Your task to perform on an android device: Turn off the flashlight Image 0: 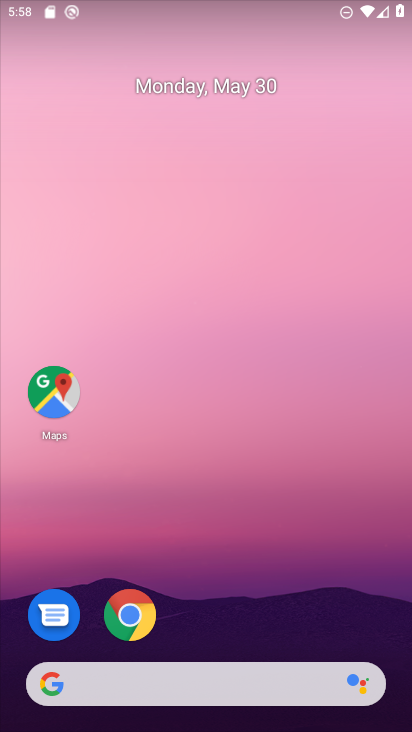
Step 0: drag from (236, 625) to (259, 171)
Your task to perform on an android device: Turn off the flashlight Image 1: 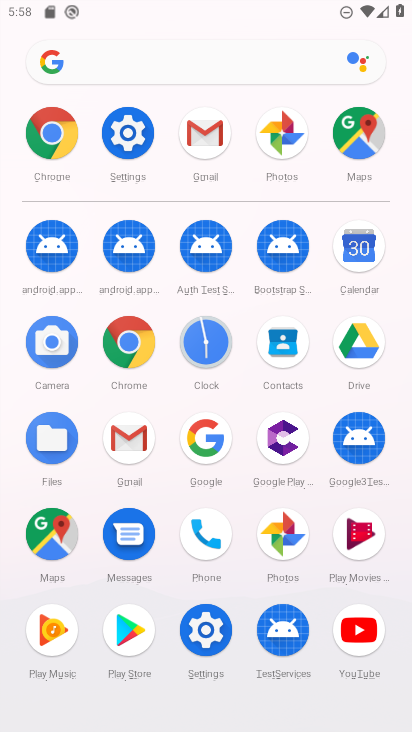
Step 1: click (138, 135)
Your task to perform on an android device: Turn off the flashlight Image 2: 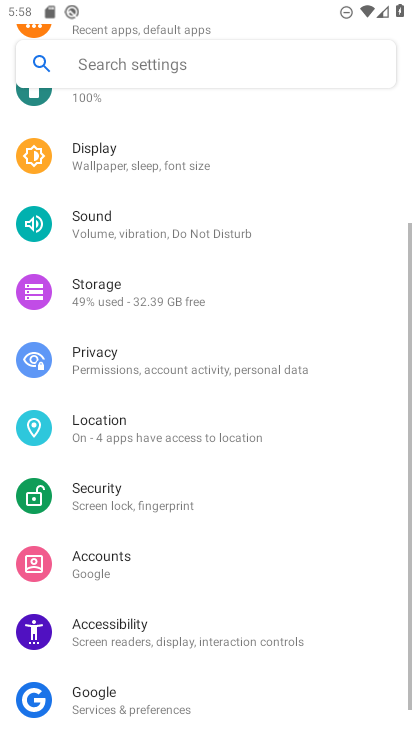
Step 2: task complete